Your task to perform on an android device: Open calendar and show me the second week of next month Image 0: 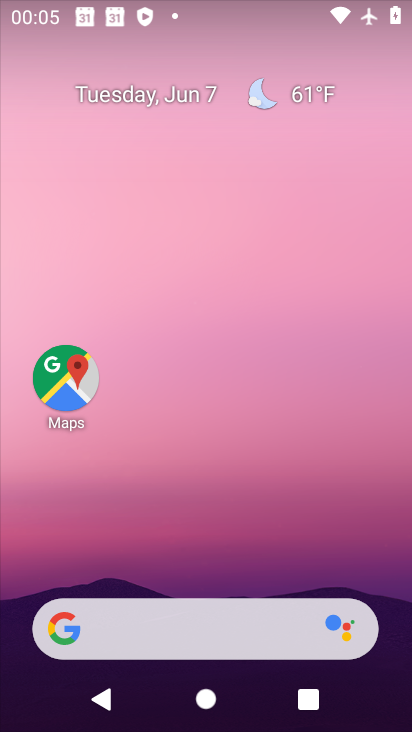
Step 0: drag from (203, 582) to (211, 97)
Your task to perform on an android device: Open calendar and show me the second week of next month Image 1: 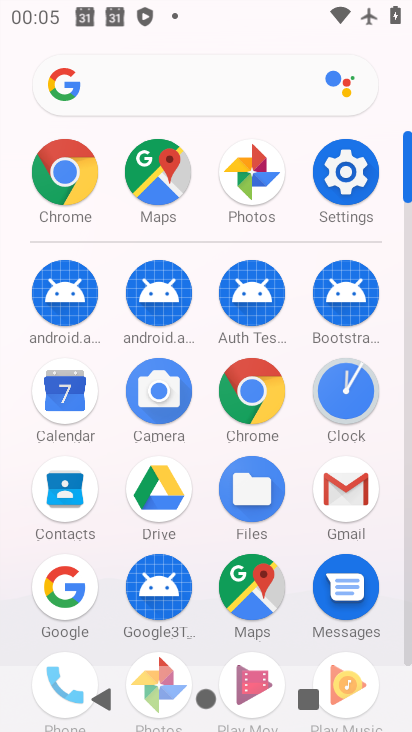
Step 1: click (70, 399)
Your task to perform on an android device: Open calendar and show me the second week of next month Image 2: 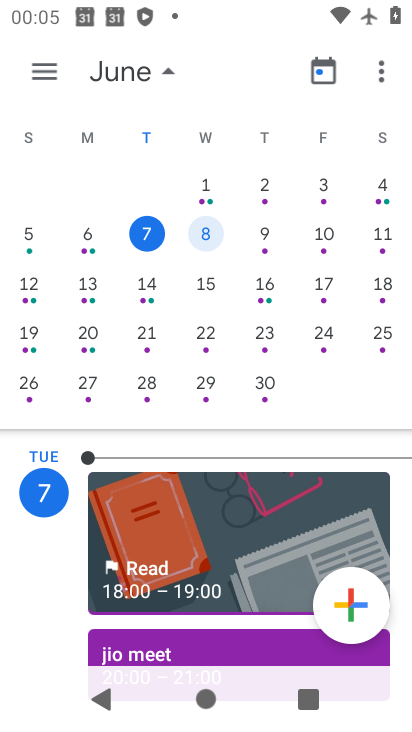
Step 2: drag from (384, 405) to (11, 393)
Your task to perform on an android device: Open calendar and show me the second week of next month Image 3: 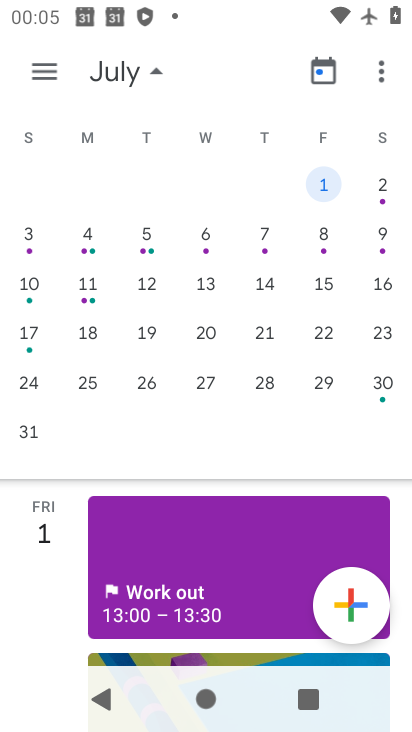
Step 3: click (209, 280)
Your task to perform on an android device: Open calendar and show me the second week of next month Image 4: 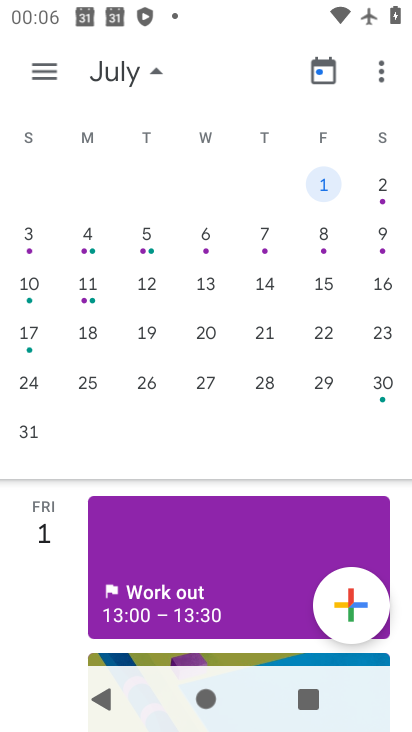
Step 4: drag from (380, 381) to (136, 386)
Your task to perform on an android device: Open calendar and show me the second week of next month Image 5: 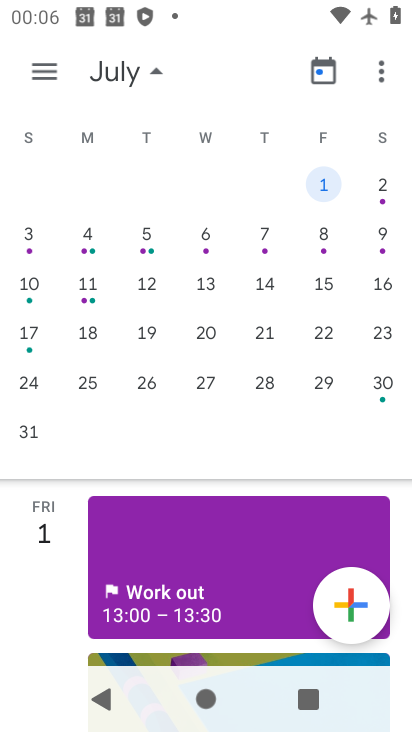
Step 5: click (212, 286)
Your task to perform on an android device: Open calendar and show me the second week of next month Image 6: 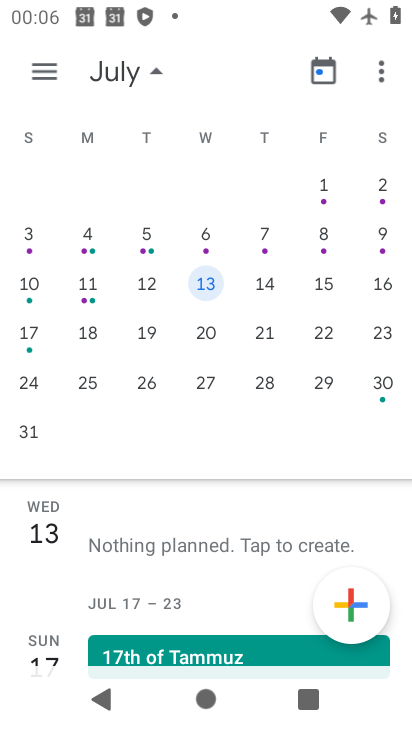
Step 6: task complete